Your task to perform on an android device: Open the stopwatch Image 0: 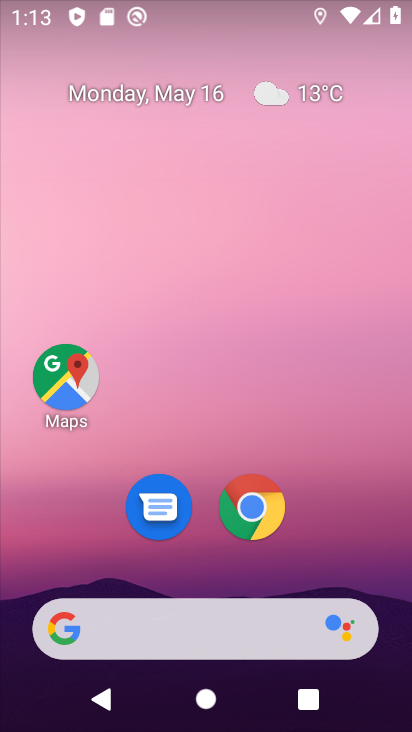
Step 0: drag from (207, 531) to (228, 83)
Your task to perform on an android device: Open the stopwatch Image 1: 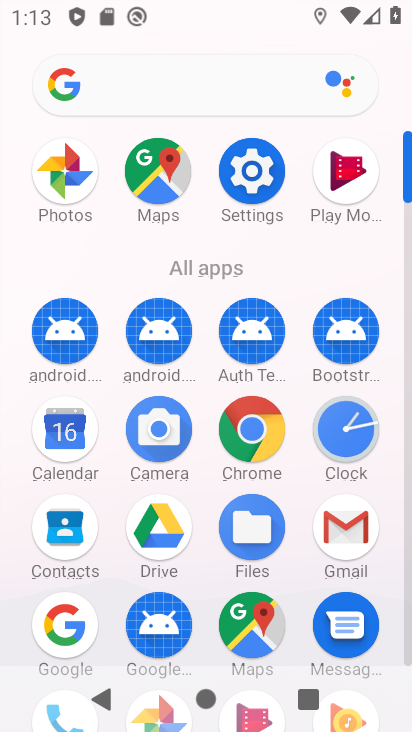
Step 1: drag from (202, 392) to (196, 211)
Your task to perform on an android device: Open the stopwatch Image 2: 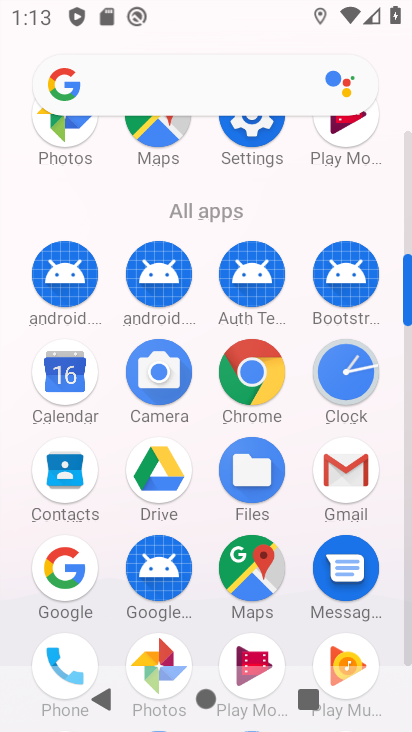
Step 2: click (349, 367)
Your task to perform on an android device: Open the stopwatch Image 3: 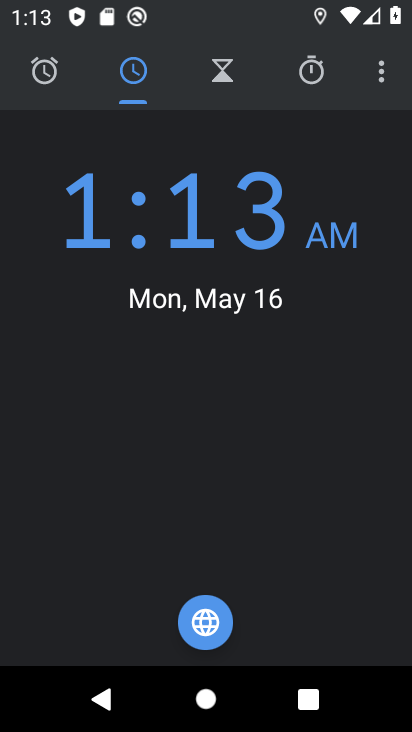
Step 3: click (327, 81)
Your task to perform on an android device: Open the stopwatch Image 4: 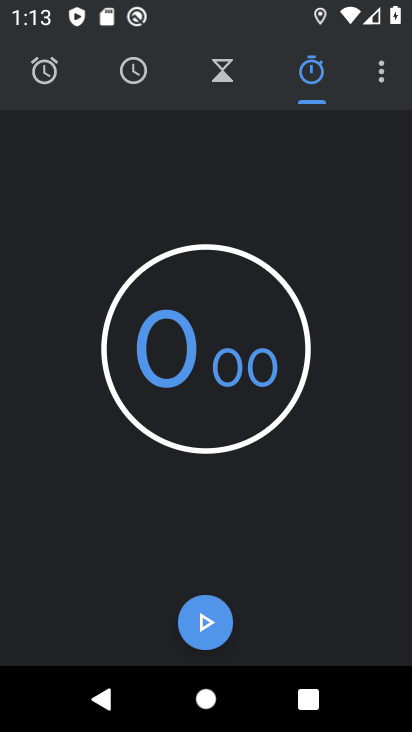
Step 4: click (203, 627)
Your task to perform on an android device: Open the stopwatch Image 5: 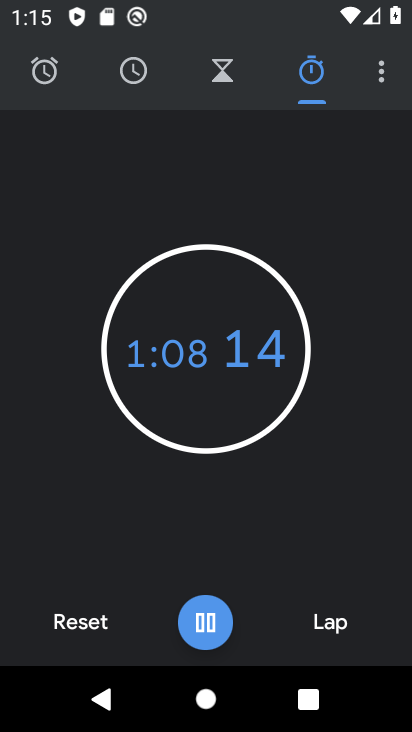
Step 5: task complete